Your task to perform on an android device: Open display settings Image 0: 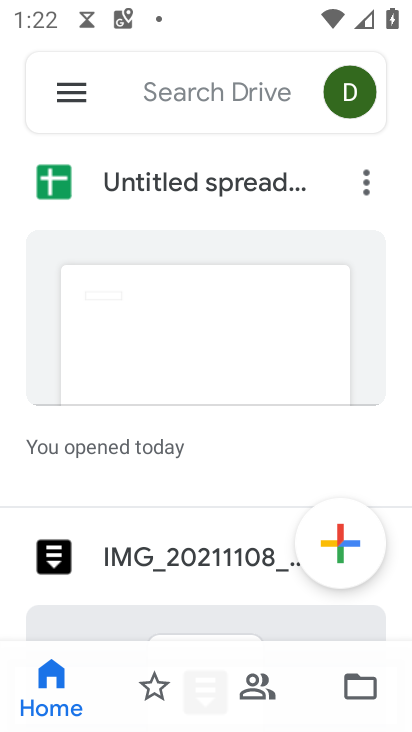
Step 0: press home button
Your task to perform on an android device: Open display settings Image 1: 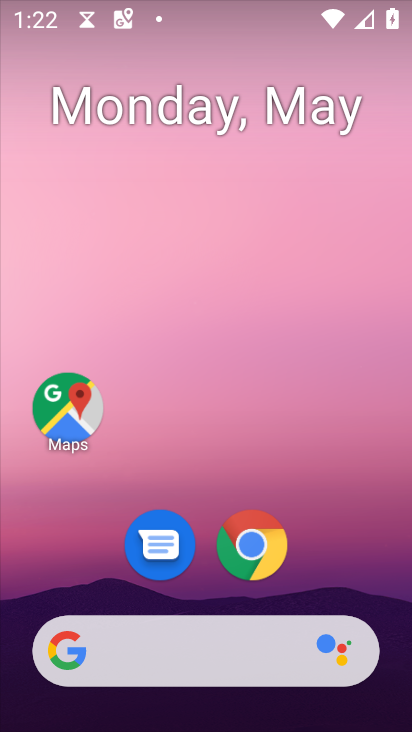
Step 1: drag from (362, 509) to (313, 188)
Your task to perform on an android device: Open display settings Image 2: 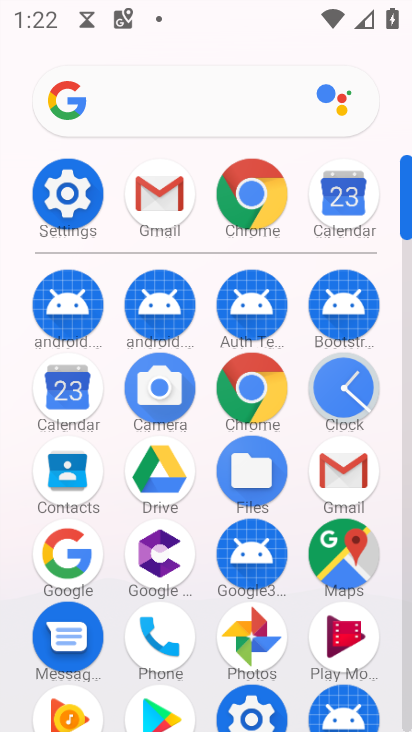
Step 2: click (73, 180)
Your task to perform on an android device: Open display settings Image 3: 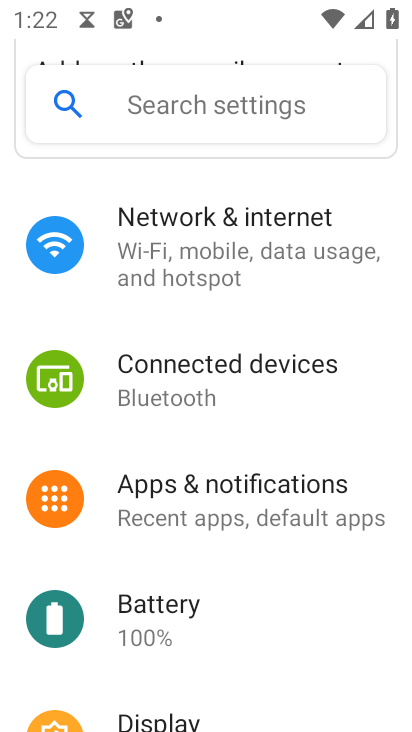
Step 3: drag from (262, 504) to (263, 402)
Your task to perform on an android device: Open display settings Image 4: 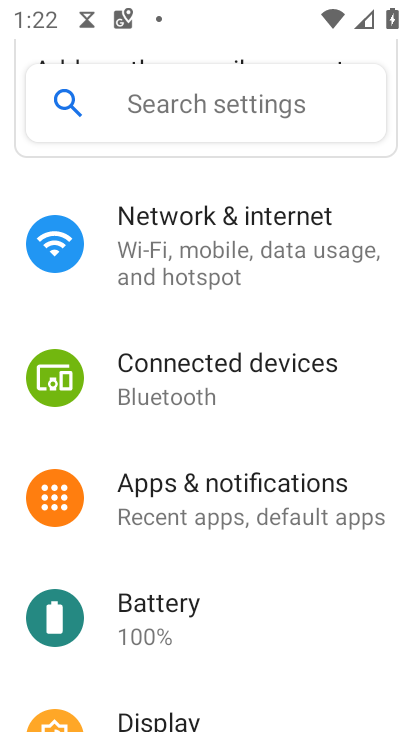
Step 4: click (159, 713)
Your task to perform on an android device: Open display settings Image 5: 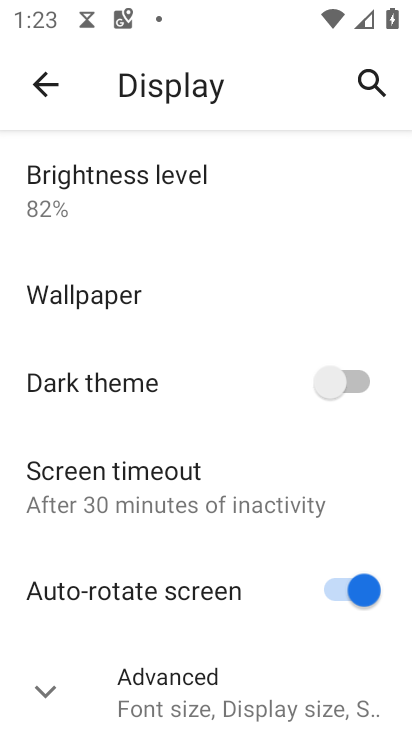
Step 5: task complete